Your task to perform on an android device: set an alarm Image 0: 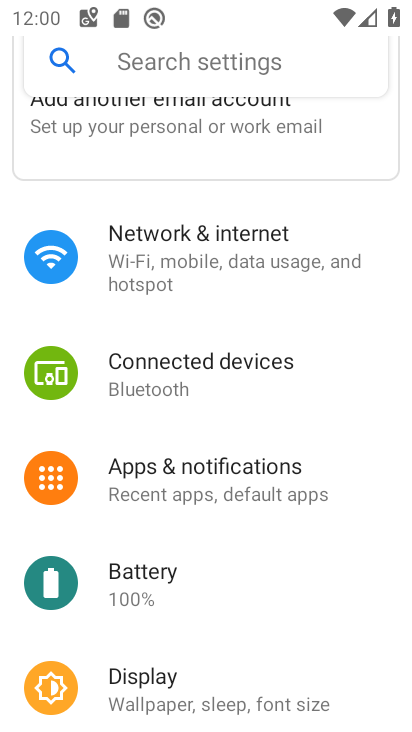
Step 0: press home button
Your task to perform on an android device: set an alarm Image 1: 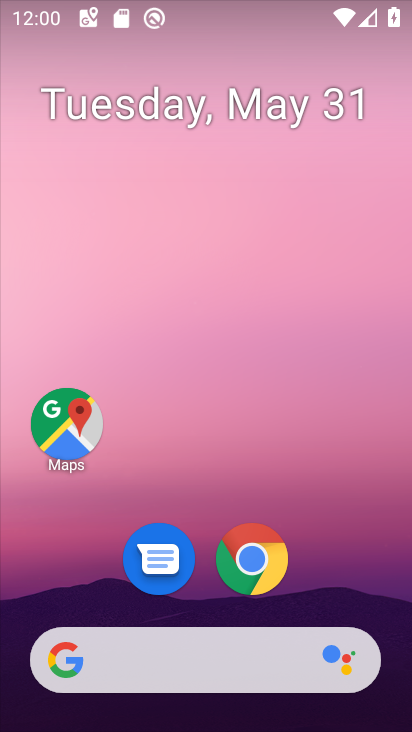
Step 1: drag from (351, 585) to (247, 191)
Your task to perform on an android device: set an alarm Image 2: 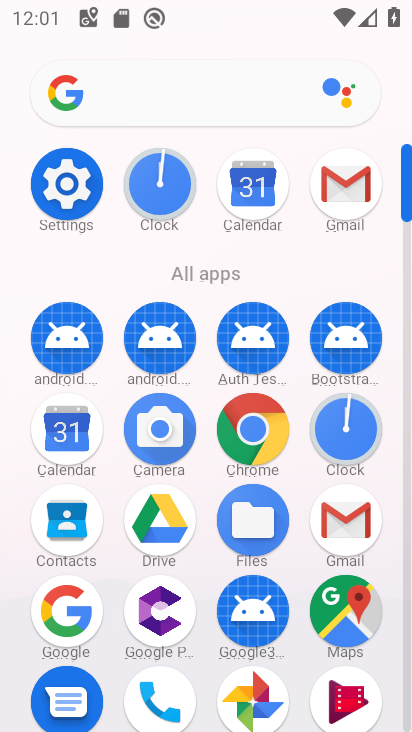
Step 2: click (333, 414)
Your task to perform on an android device: set an alarm Image 3: 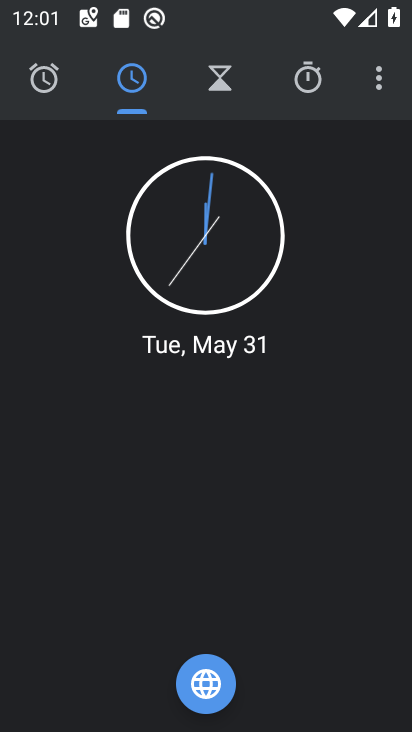
Step 3: click (63, 81)
Your task to perform on an android device: set an alarm Image 4: 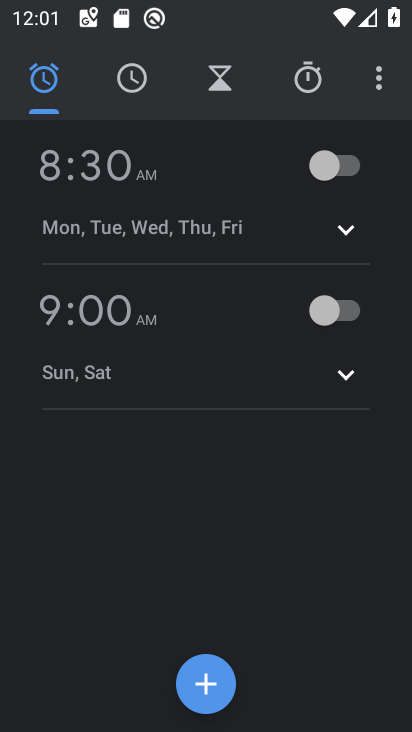
Step 4: click (216, 682)
Your task to perform on an android device: set an alarm Image 5: 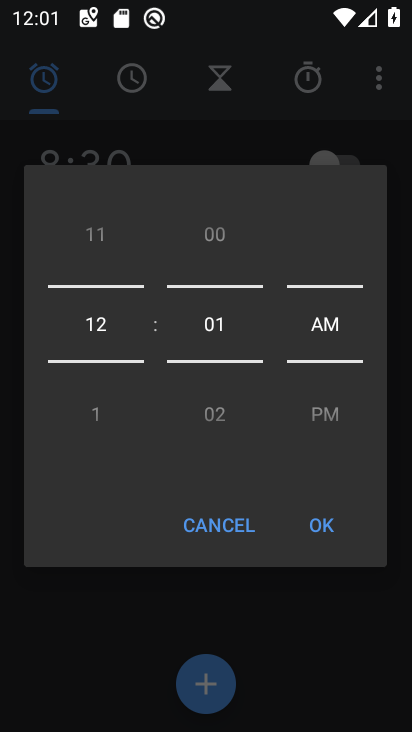
Step 5: click (320, 525)
Your task to perform on an android device: set an alarm Image 6: 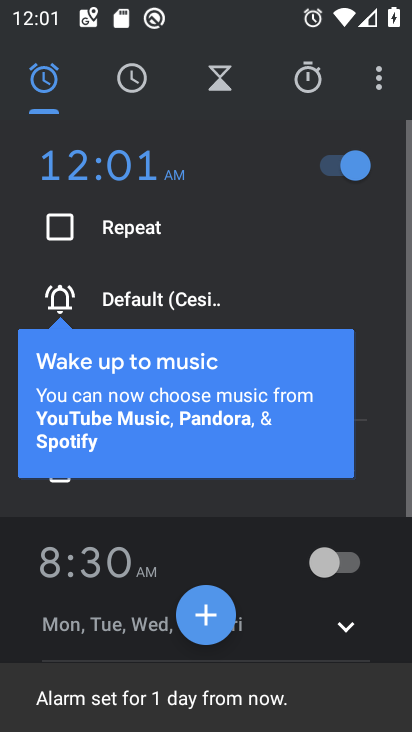
Step 6: task complete